Your task to perform on an android device: Go to Wikipedia Image 0: 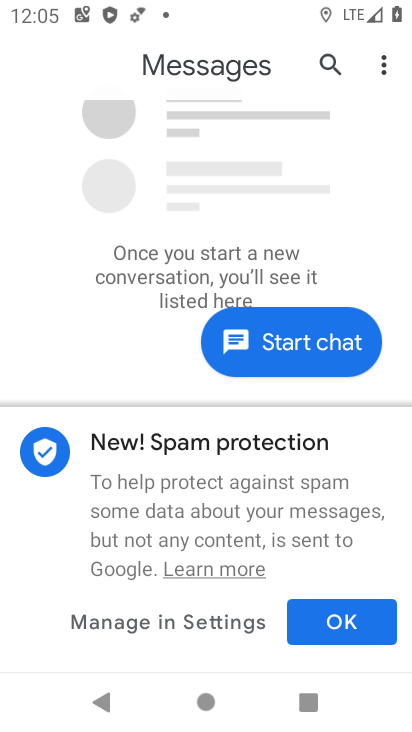
Step 0: press home button
Your task to perform on an android device: Go to Wikipedia Image 1: 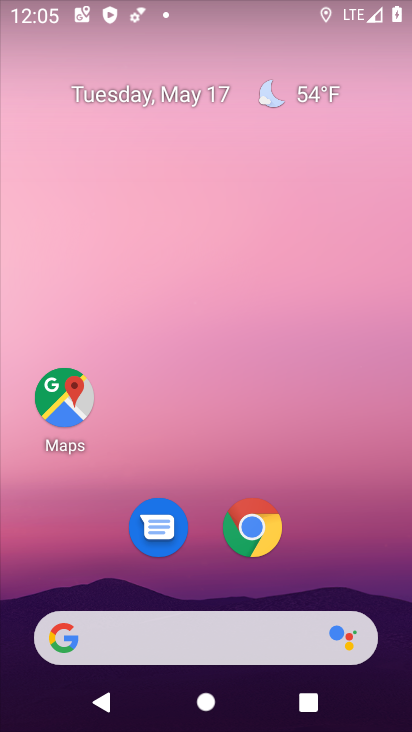
Step 1: drag from (261, 678) to (186, 275)
Your task to perform on an android device: Go to Wikipedia Image 2: 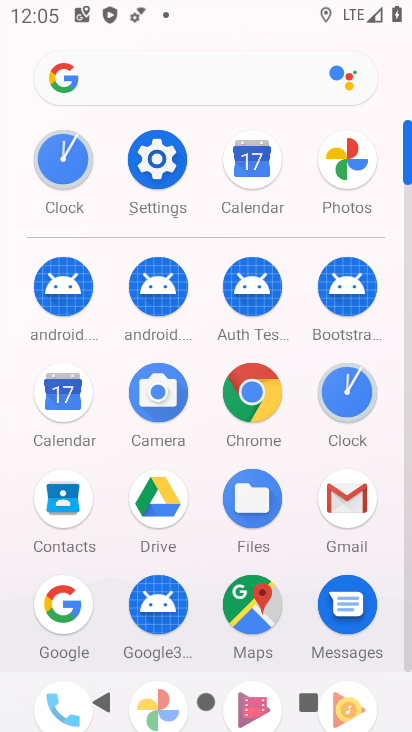
Step 2: click (262, 393)
Your task to perform on an android device: Go to Wikipedia Image 3: 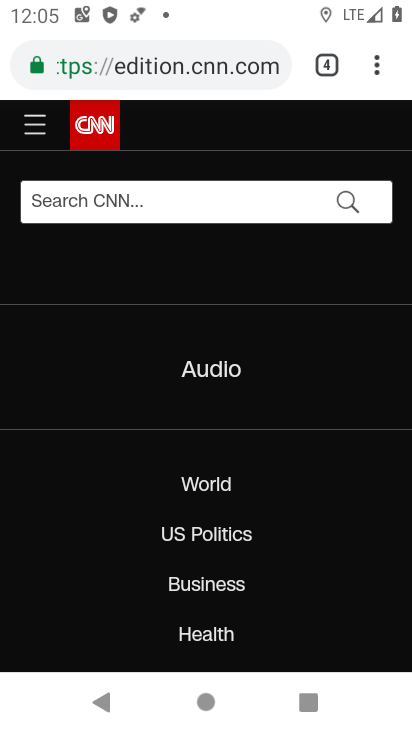
Step 3: click (330, 65)
Your task to perform on an android device: Go to Wikipedia Image 4: 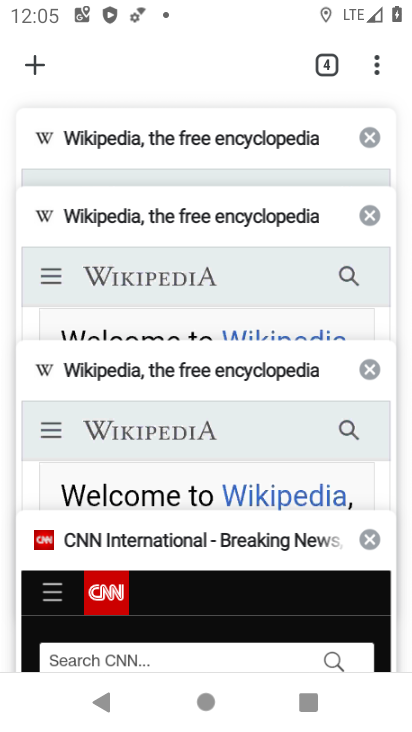
Step 4: click (31, 57)
Your task to perform on an android device: Go to Wikipedia Image 5: 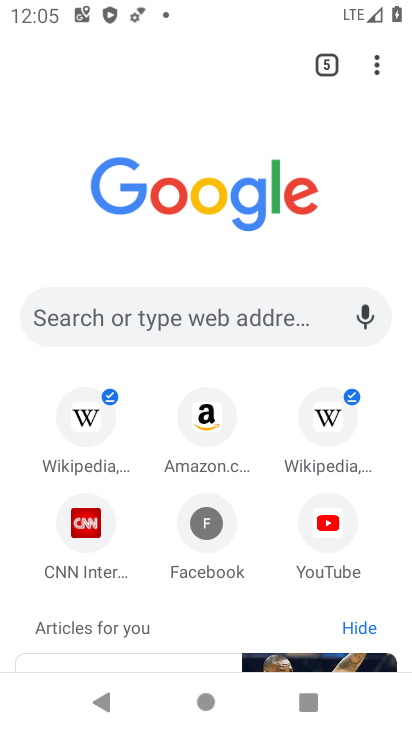
Step 5: click (102, 436)
Your task to perform on an android device: Go to Wikipedia Image 6: 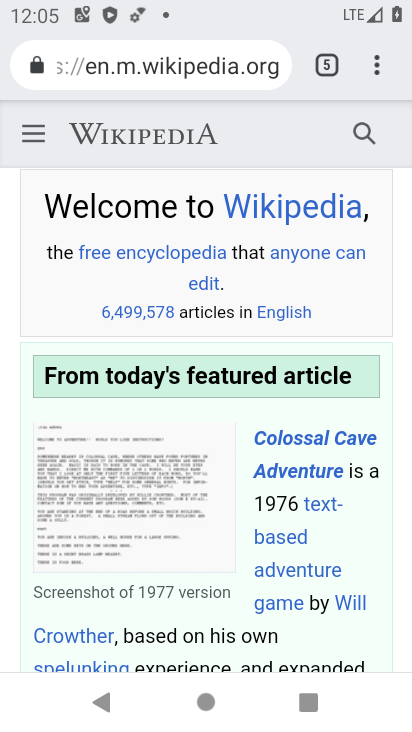
Step 6: task complete